Your task to perform on an android device: What's a good restaurant in New York? Image 0: 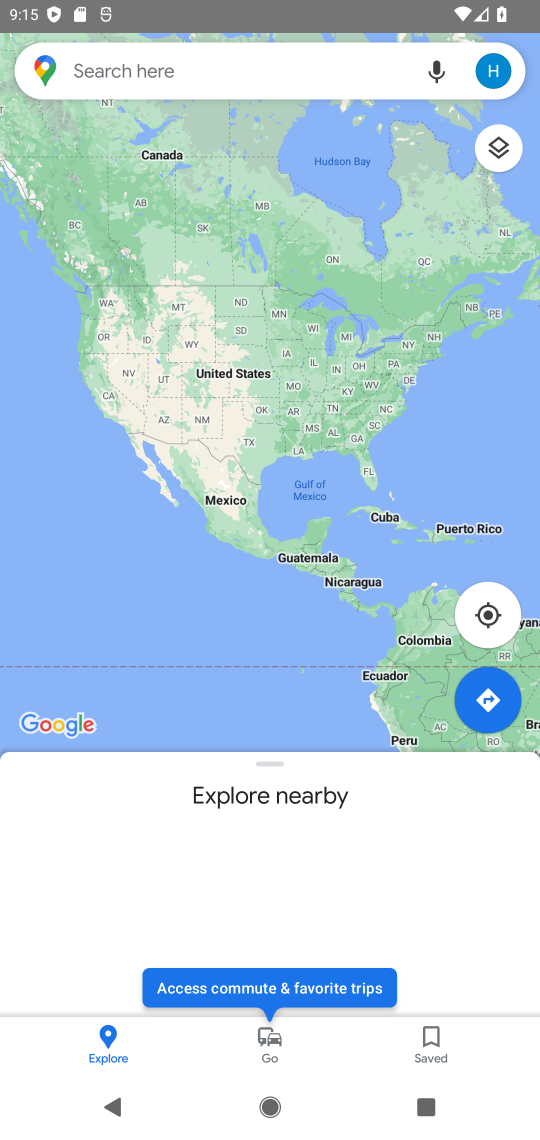
Step 0: press home button
Your task to perform on an android device: What's a good restaurant in New York? Image 1: 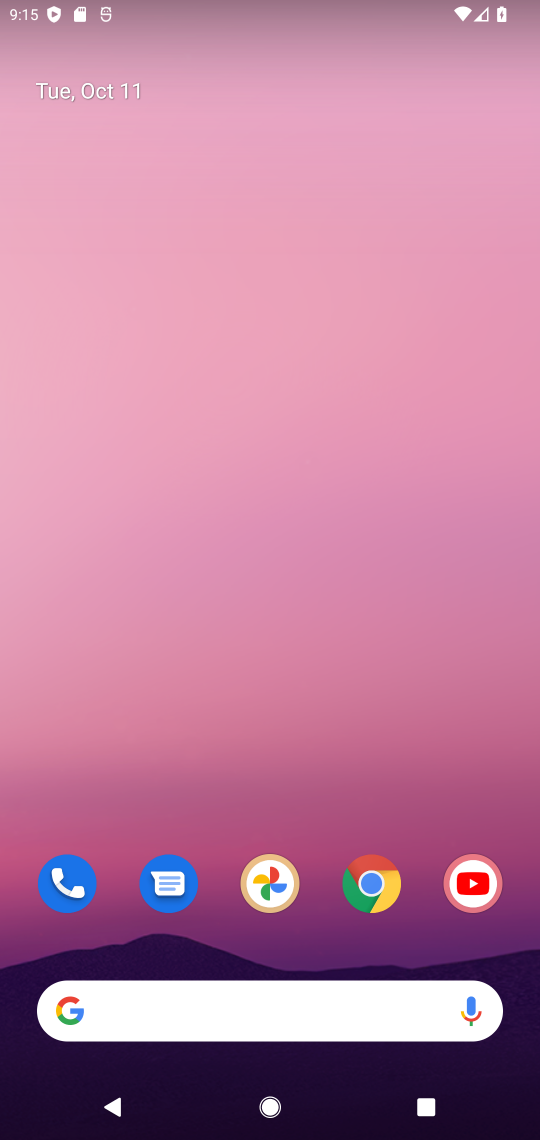
Step 1: click (67, 1010)
Your task to perform on an android device: What's a good restaurant in New York? Image 2: 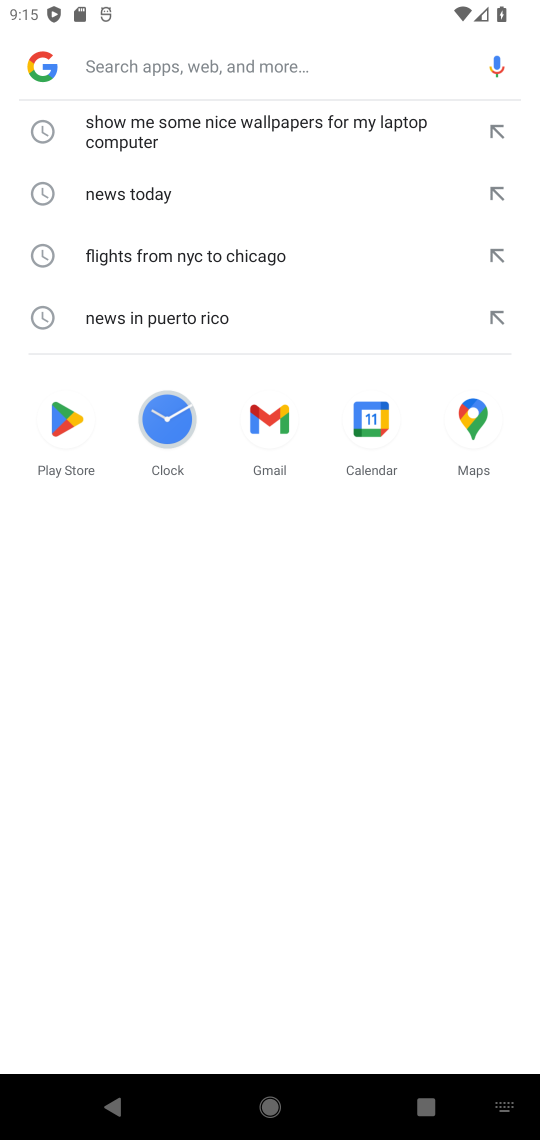
Step 2: click (252, 62)
Your task to perform on an android device: What's a good restaurant in New York? Image 3: 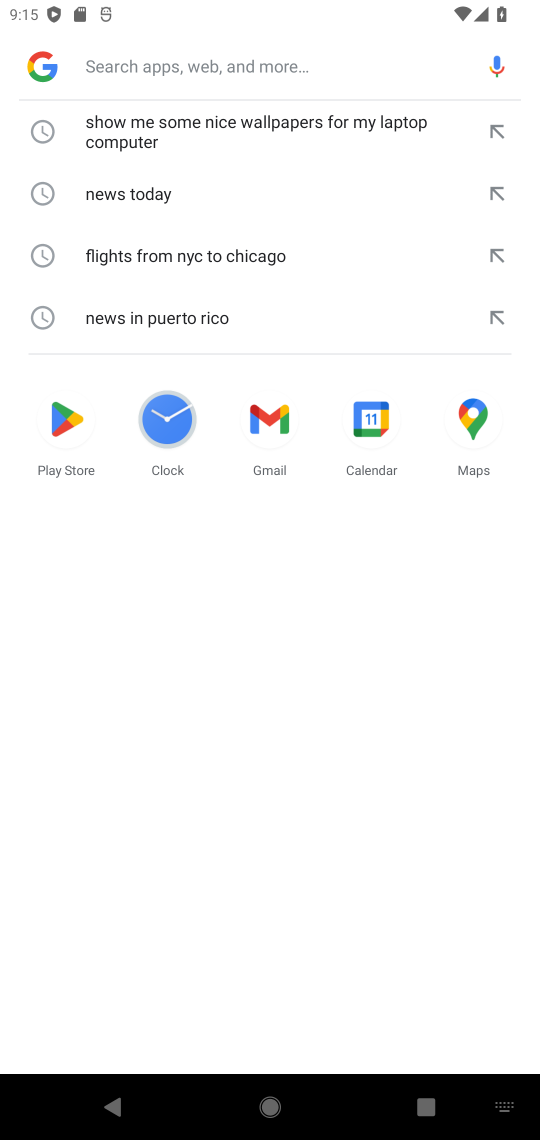
Step 3: type "What's a good restaurant in New York?"
Your task to perform on an android device: What's a good restaurant in New York? Image 4: 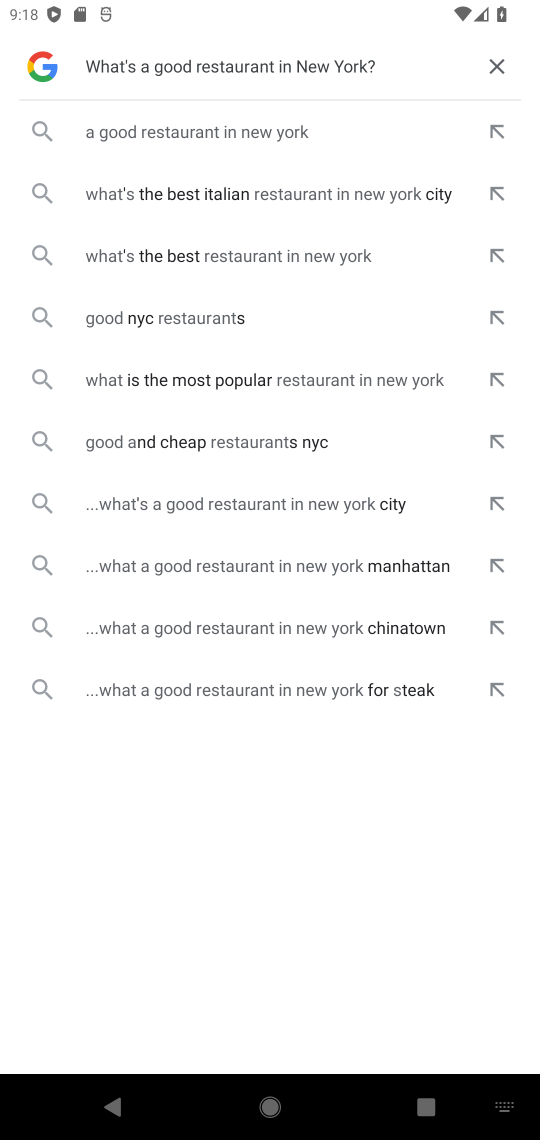
Step 4: task complete